Your task to perform on an android device: turn off priority inbox in the gmail app Image 0: 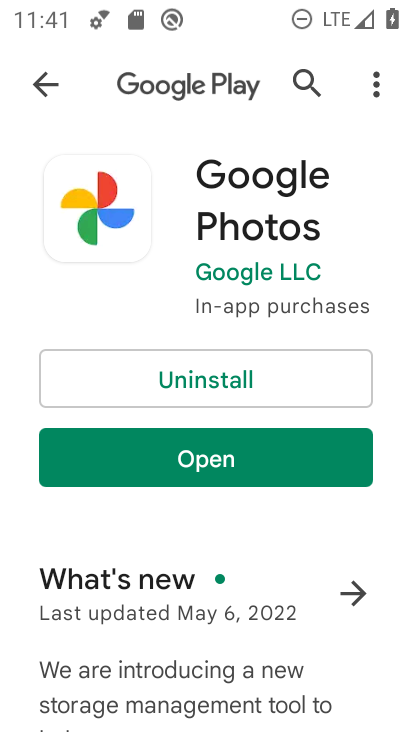
Step 0: press home button
Your task to perform on an android device: turn off priority inbox in the gmail app Image 1: 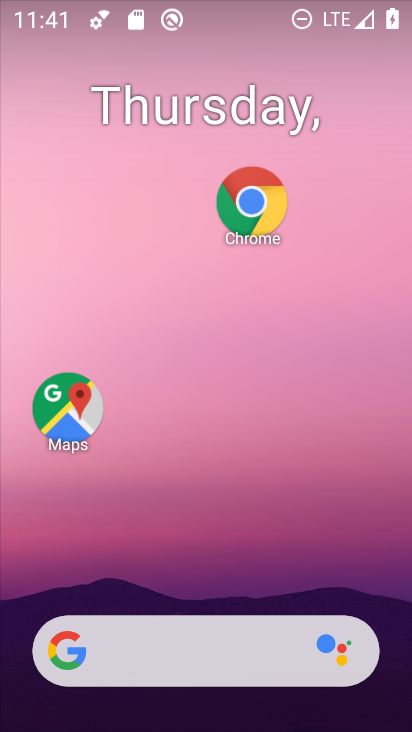
Step 1: drag from (226, 605) to (347, 671)
Your task to perform on an android device: turn off priority inbox in the gmail app Image 2: 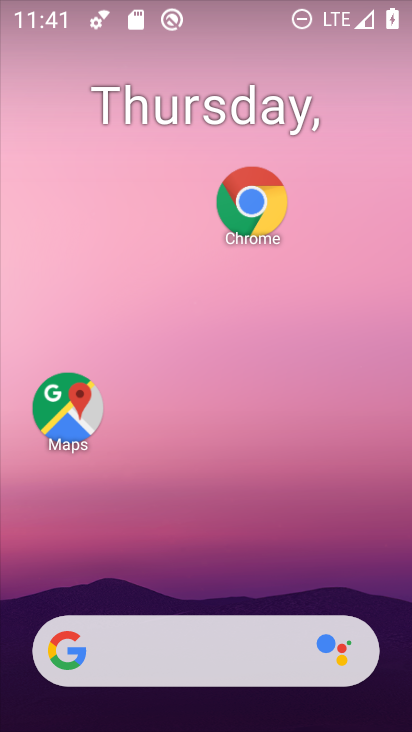
Step 2: drag from (252, 598) to (277, 14)
Your task to perform on an android device: turn off priority inbox in the gmail app Image 3: 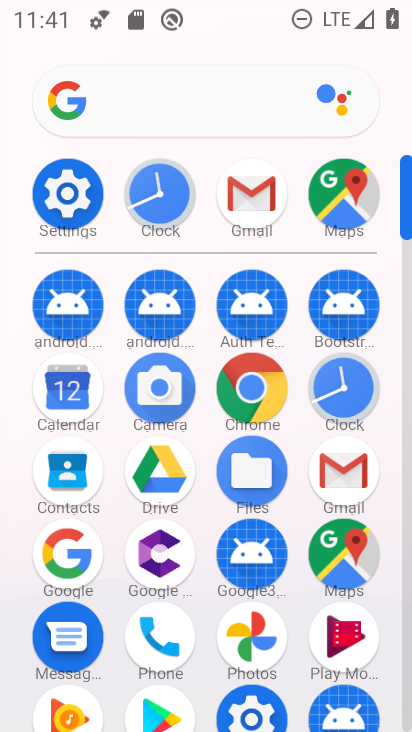
Step 3: click (356, 469)
Your task to perform on an android device: turn off priority inbox in the gmail app Image 4: 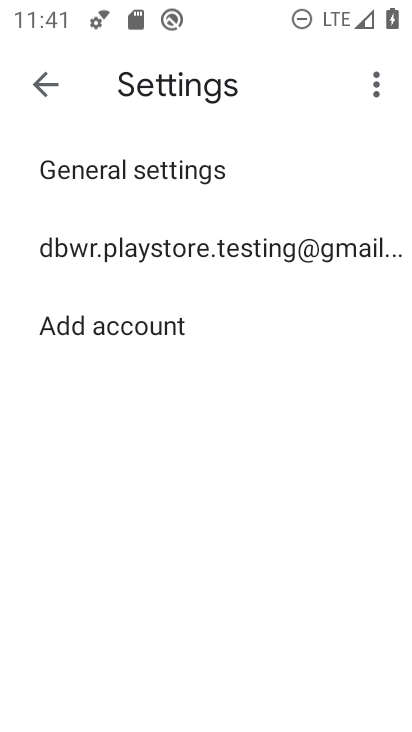
Step 4: click (196, 254)
Your task to perform on an android device: turn off priority inbox in the gmail app Image 5: 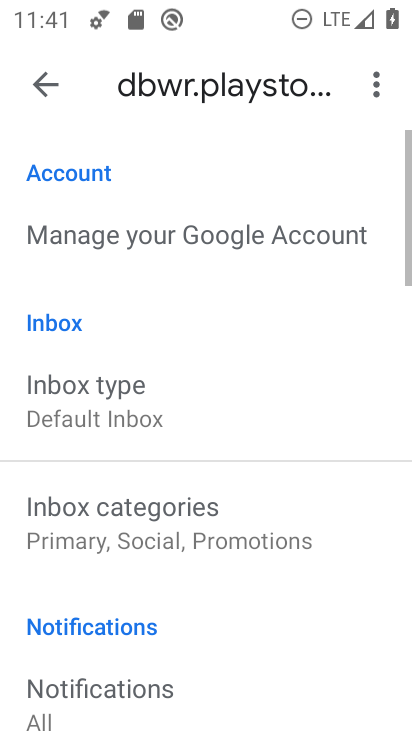
Step 5: drag from (234, 612) to (123, 10)
Your task to perform on an android device: turn off priority inbox in the gmail app Image 6: 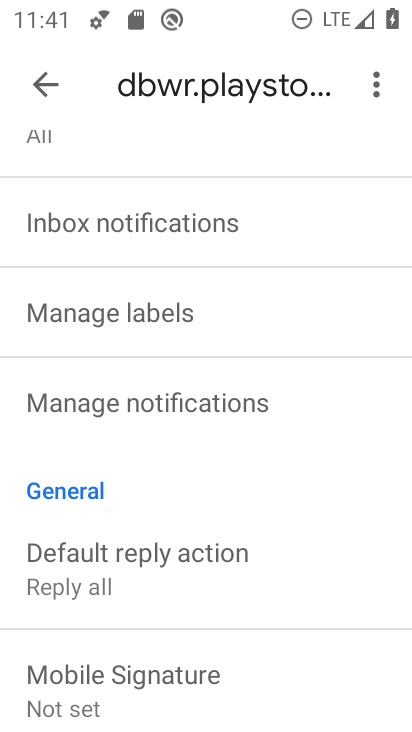
Step 6: drag from (173, 568) to (94, 4)
Your task to perform on an android device: turn off priority inbox in the gmail app Image 7: 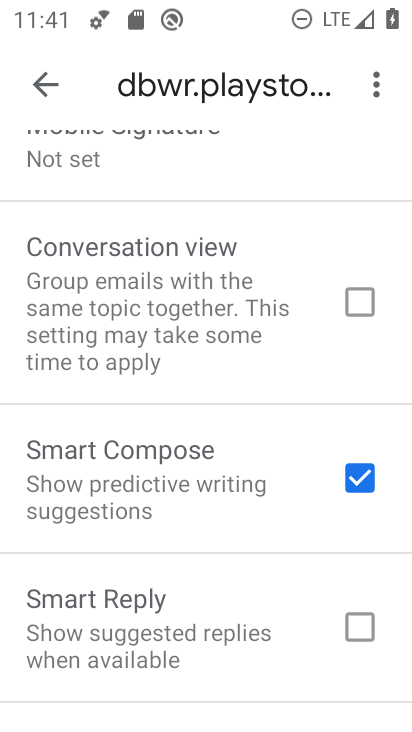
Step 7: drag from (332, 586) to (406, 715)
Your task to perform on an android device: turn off priority inbox in the gmail app Image 8: 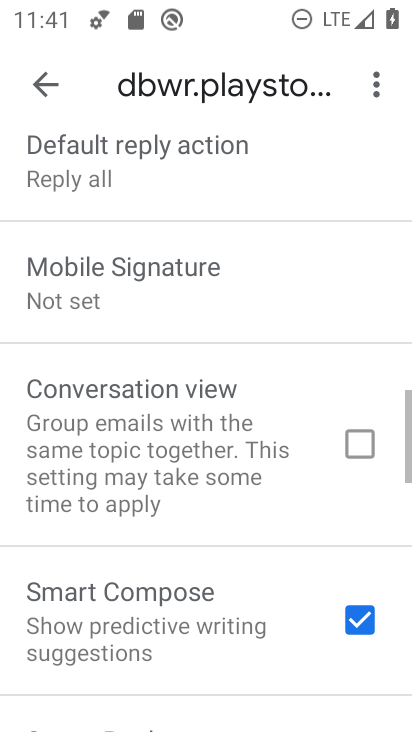
Step 8: drag from (213, 210) to (223, 731)
Your task to perform on an android device: turn off priority inbox in the gmail app Image 9: 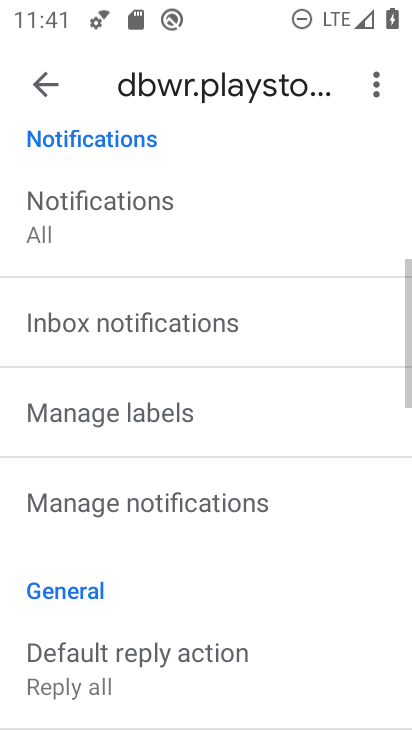
Step 9: drag from (129, 185) to (161, 722)
Your task to perform on an android device: turn off priority inbox in the gmail app Image 10: 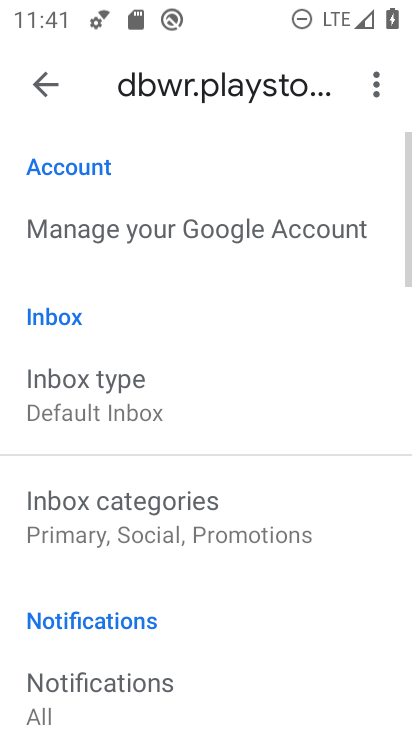
Step 10: click (102, 434)
Your task to perform on an android device: turn off priority inbox in the gmail app Image 11: 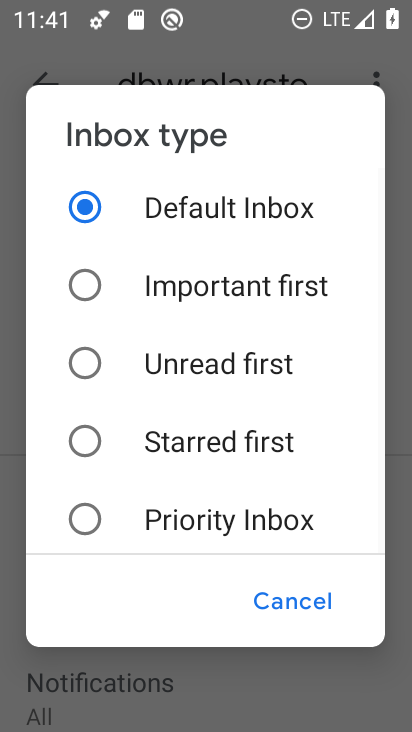
Step 11: task complete